Your task to perform on an android device: turn notification dots on Image 0: 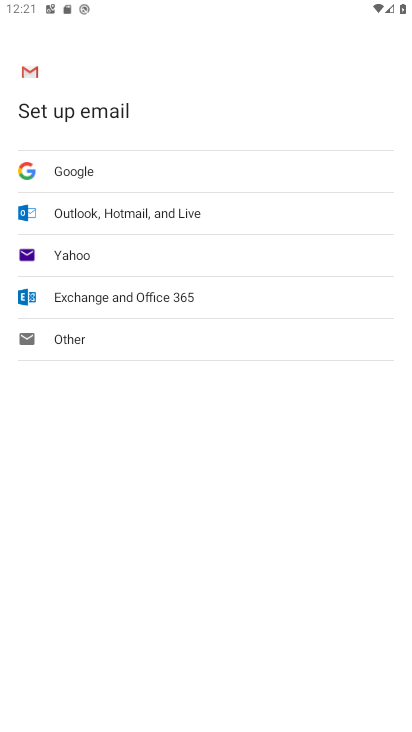
Step 0: press home button
Your task to perform on an android device: turn notification dots on Image 1: 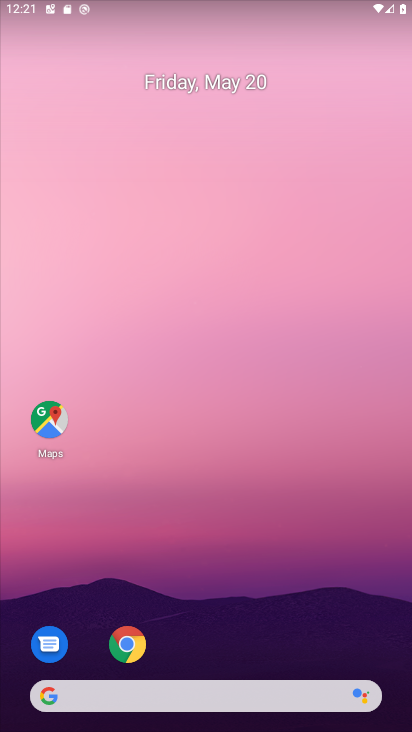
Step 1: drag from (228, 678) to (186, 410)
Your task to perform on an android device: turn notification dots on Image 2: 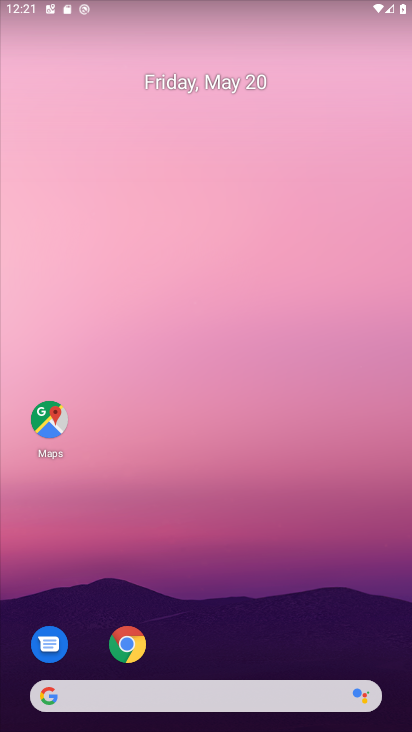
Step 2: drag from (243, 663) to (210, 275)
Your task to perform on an android device: turn notification dots on Image 3: 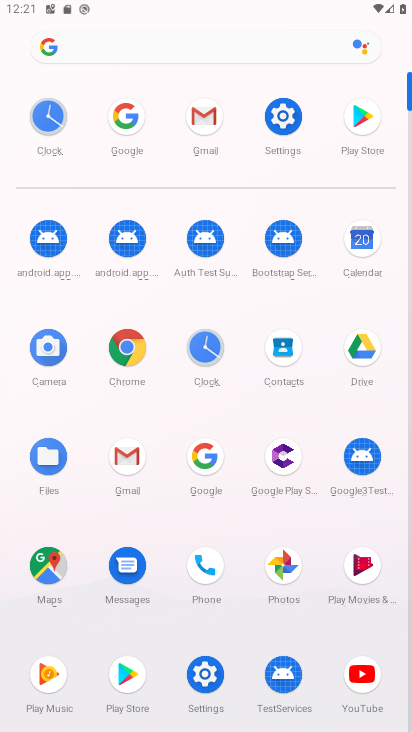
Step 3: click (282, 123)
Your task to perform on an android device: turn notification dots on Image 4: 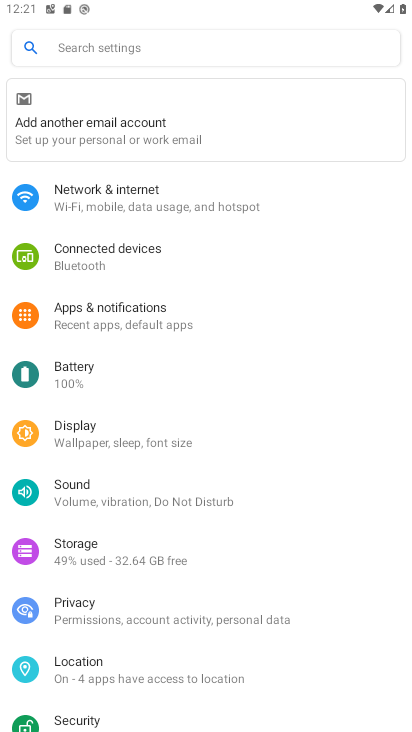
Step 4: click (95, 305)
Your task to perform on an android device: turn notification dots on Image 5: 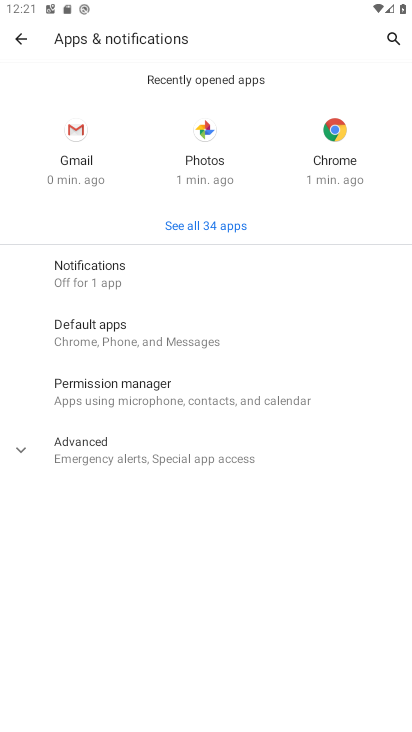
Step 5: click (87, 275)
Your task to perform on an android device: turn notification dots on Image 6: 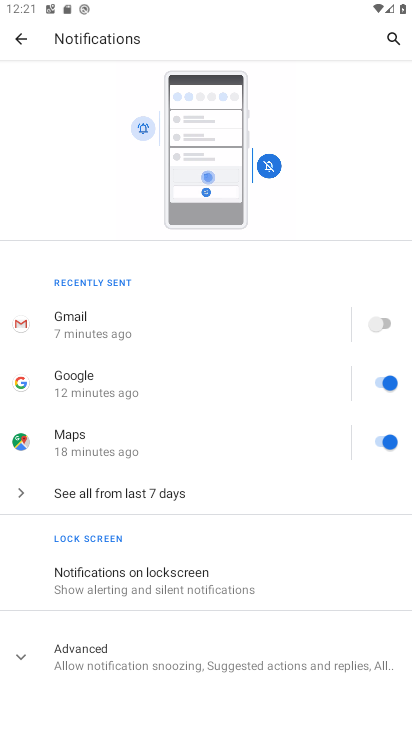
Step 6: click (124, 660)
Your task to perform on an android device: turn notification dots on Image 7: 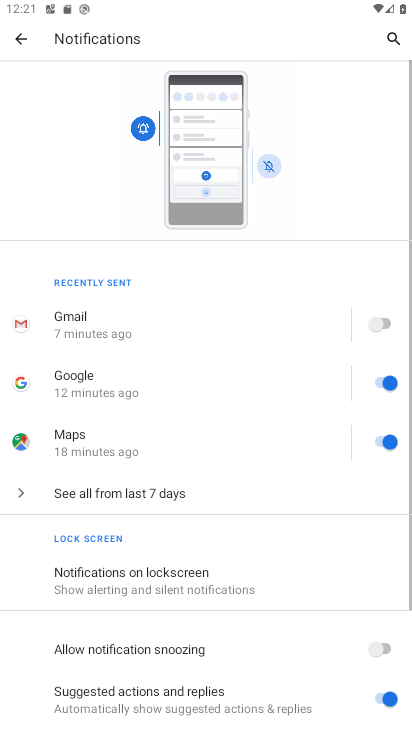
Step 7: task complete